Your task to perform on an android device: refresh tabs in the chrome app Image 0: 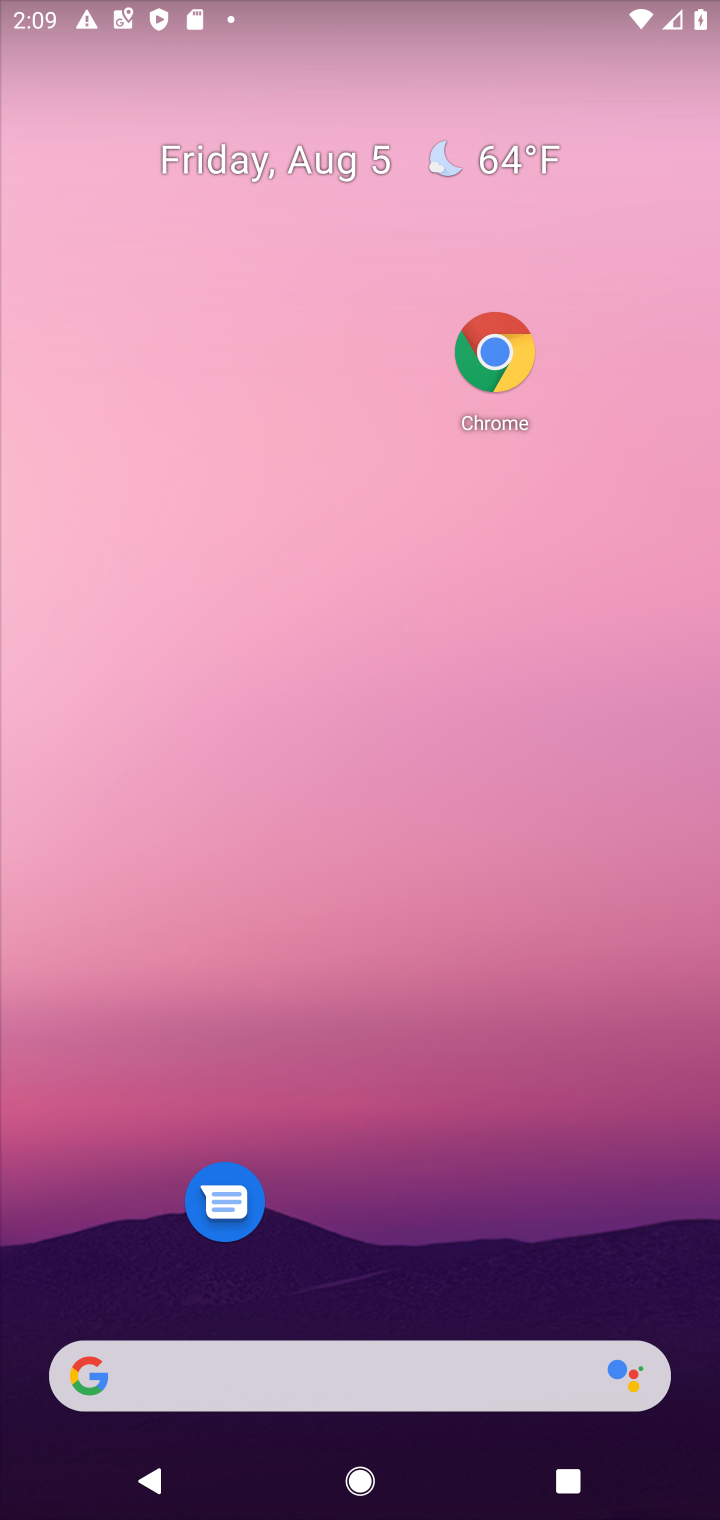
Step 0: drag from (501, 1141) to (445, 145)
Your task to perform on an android device: refresh tabs in the chrome app Image 1: 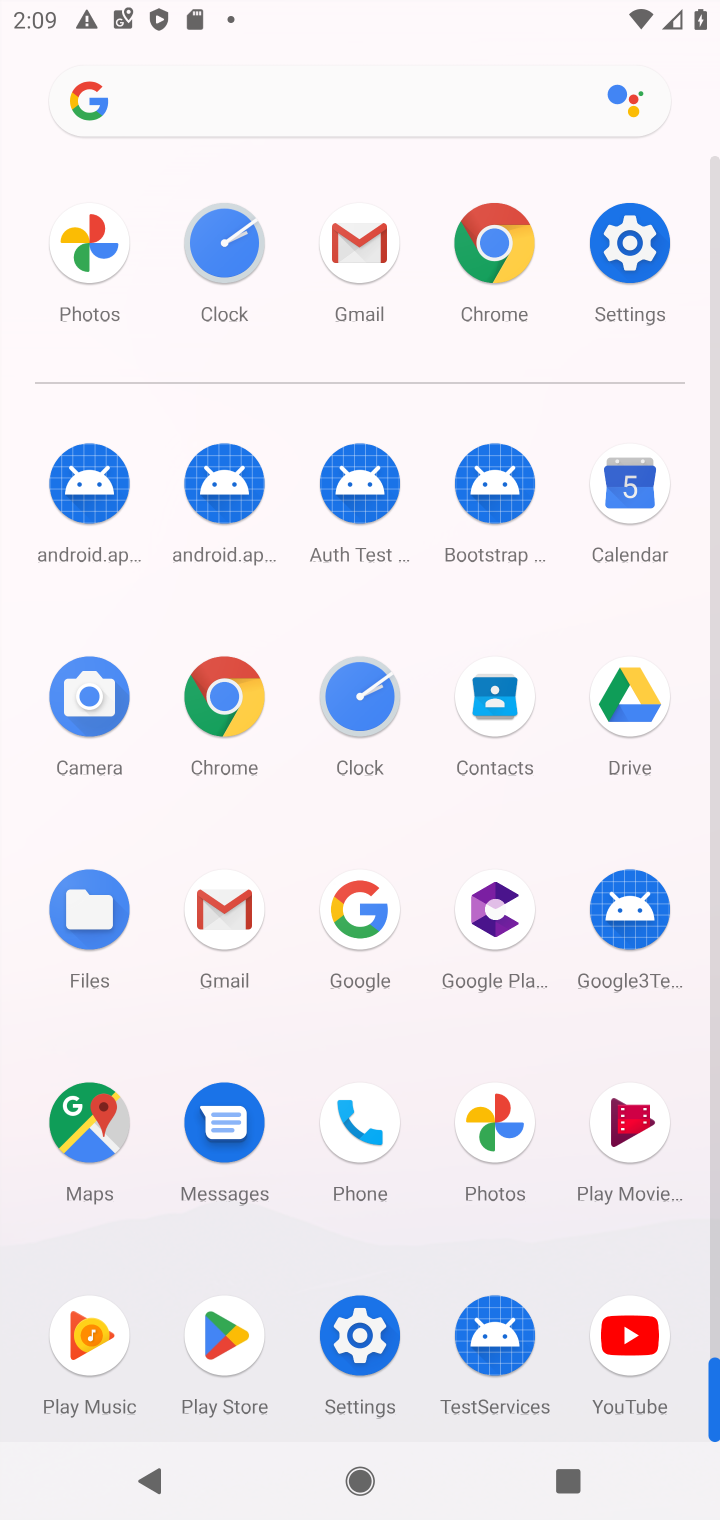
Step 1: click (220, 693)
Your task to perform on an android device: refresh tabs in the chrome app Image 2: 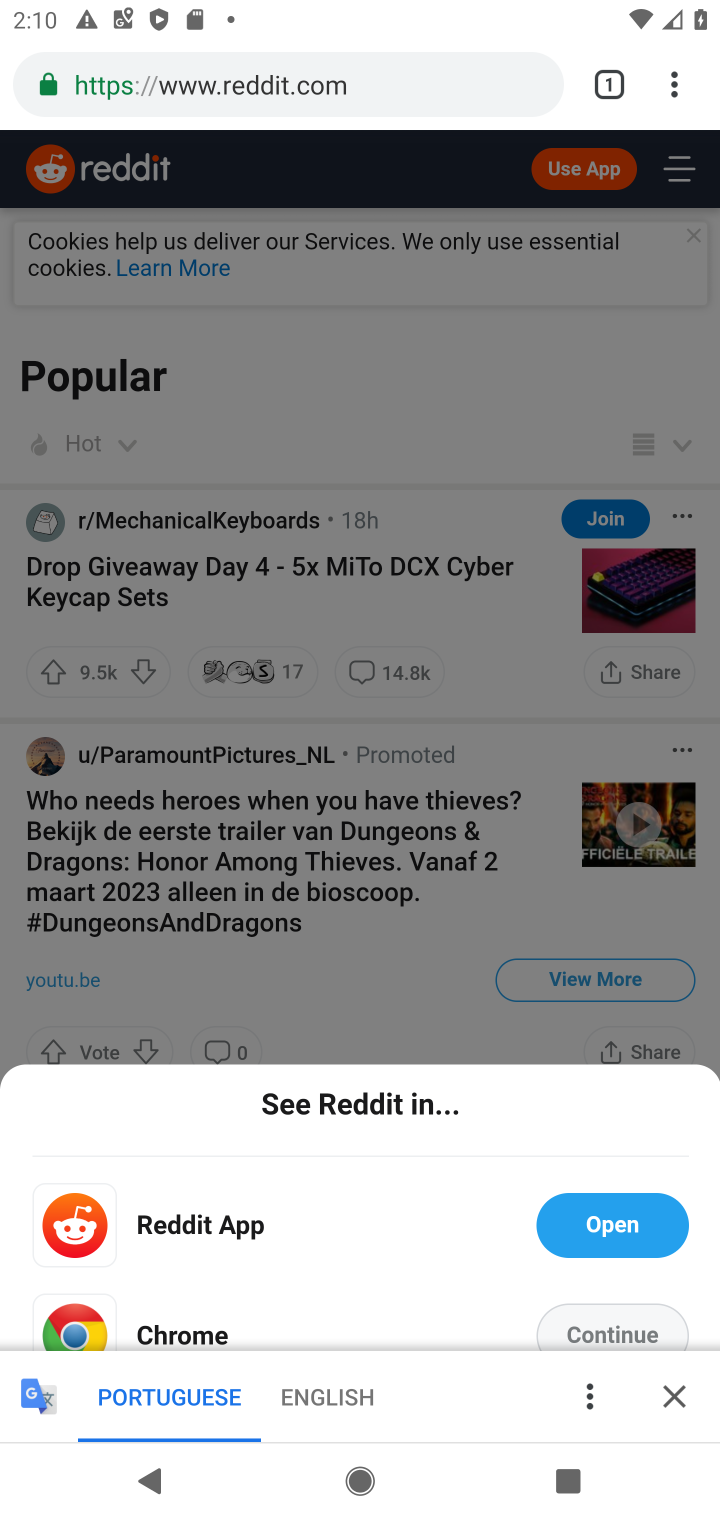
Step 2: click (672, 76)
Your task to perform on an android device: refresh tabs in the chrome app Image 3: 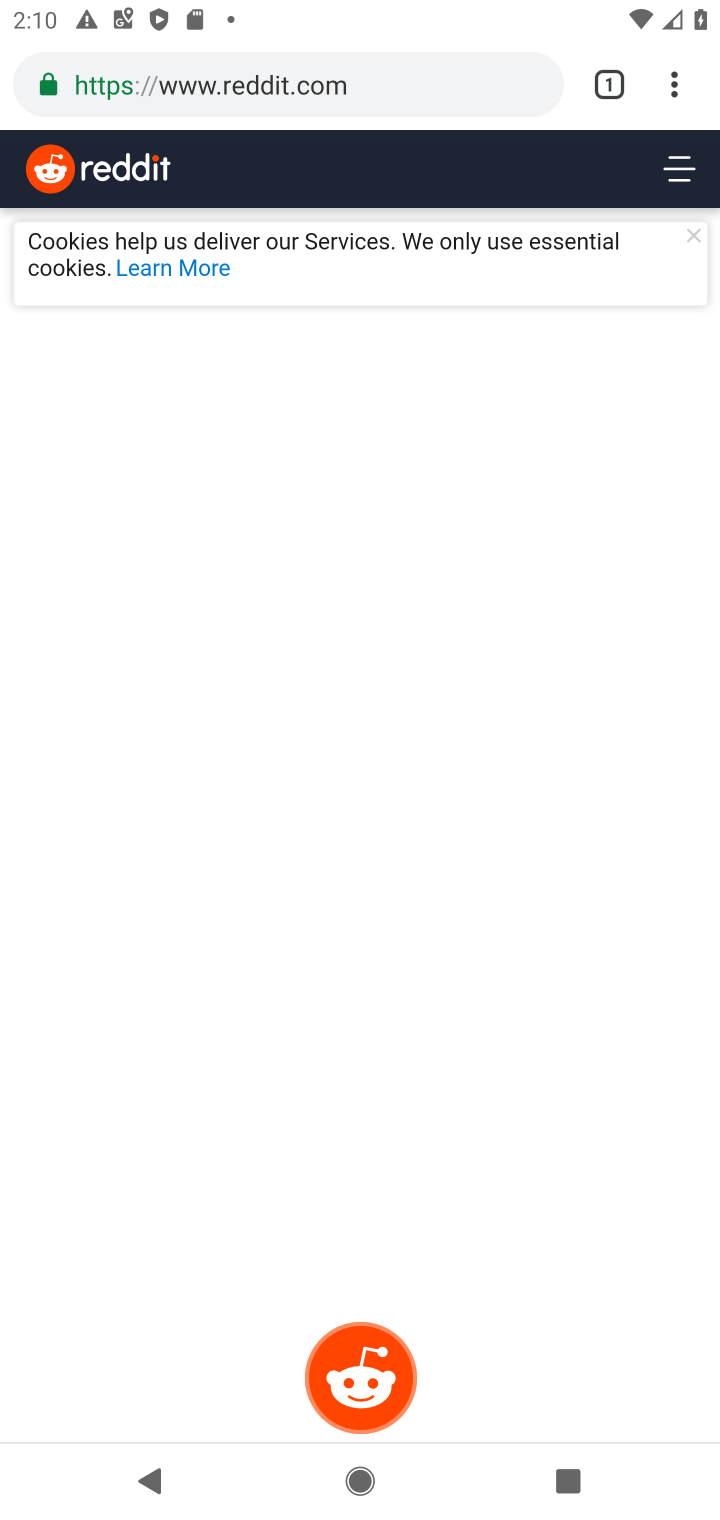
Step 3: task complete